Your task to perform on an android device: Go to ESPN.com Image 0: 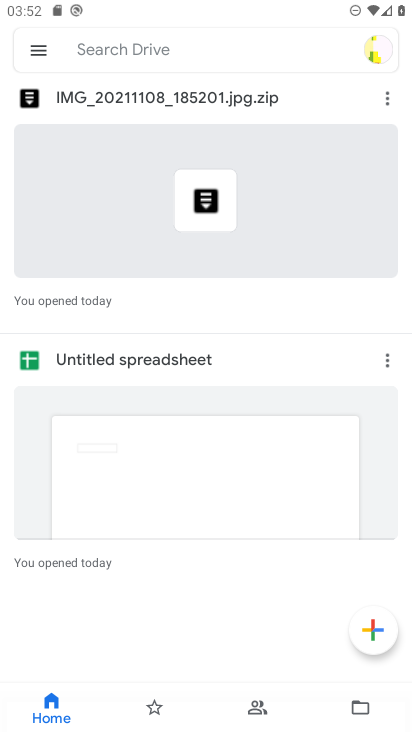
Step 0: press home button
Your task to perform on an android device: Go to ESPN.com Image 1: 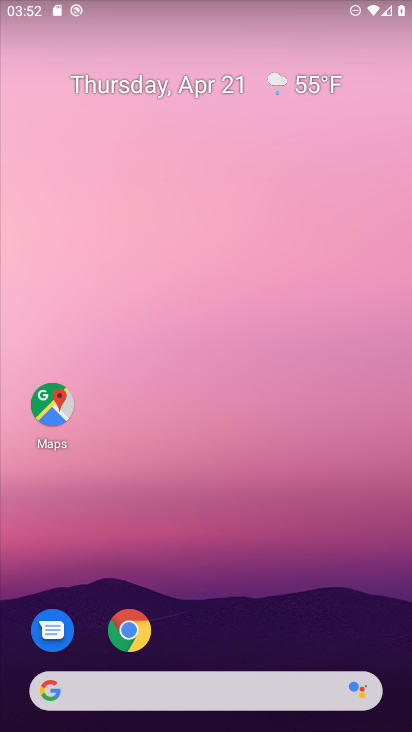
Step 1: drag from (160, 420) to (158, 134)
Your task to perform on an android device: Go to ESPN.com Image 2: 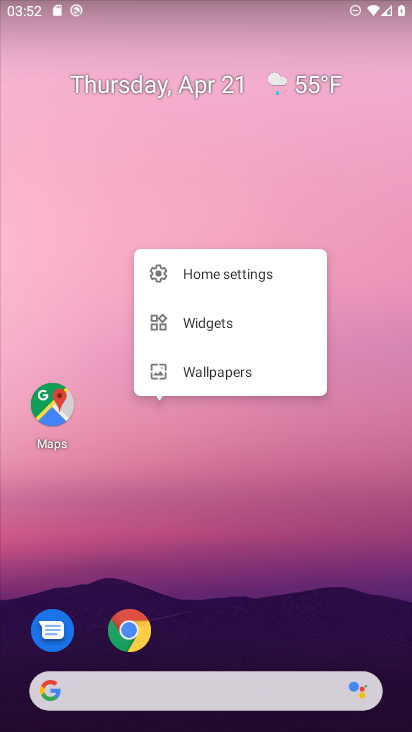
Step 2: click (257, 511)
Your task to perform on an android device: Go to ESPN.com Image 3: 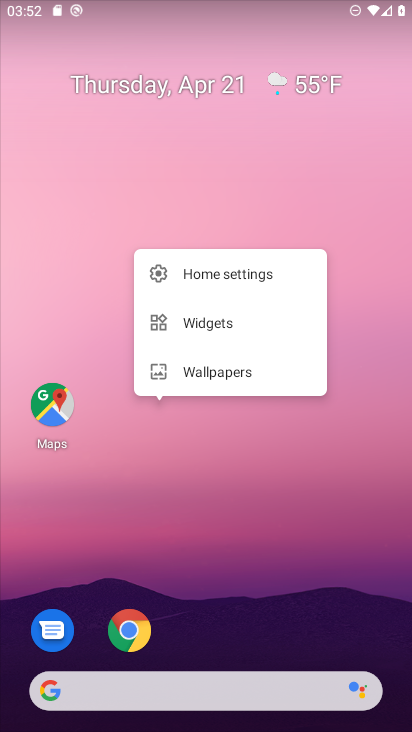
Step 3: drag from (257, 511) to (267, 229)
Your task to perform on an android device: Go to ESPN.com Image 4: 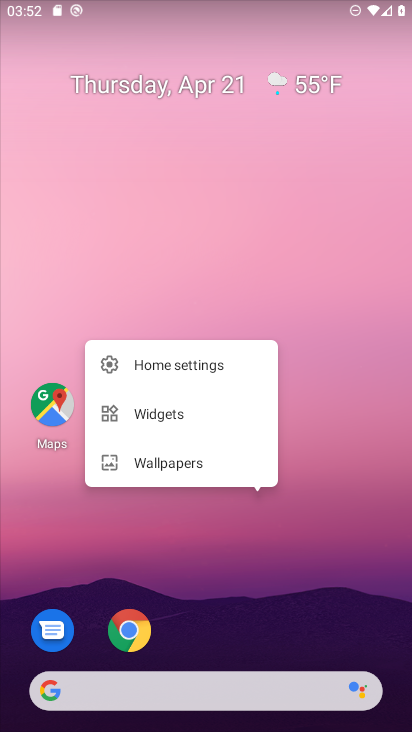
Step 4: click (366, 542)
Your task to perform on an android device: Go to ESPN.com Image 5: 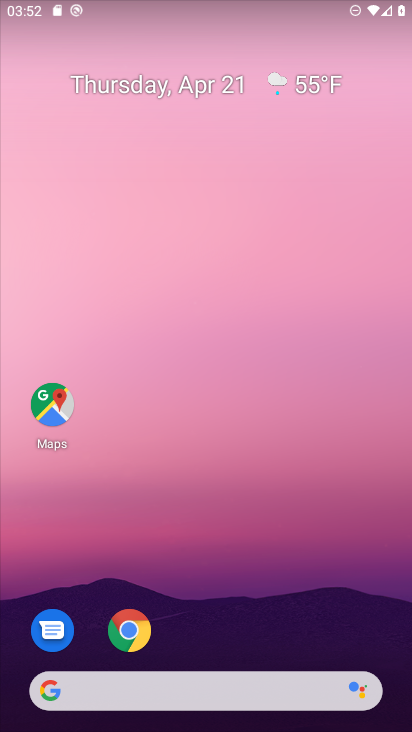
Step 5: drag from (306, 536) to (292, 147)
Your task to perform on an android device: Go to ESPN.com Image 6: 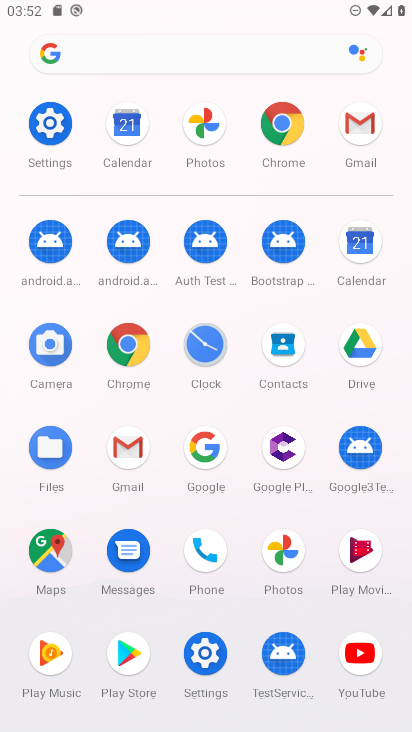
Step 6: click (225, 61)
Your task to perform on an android device: Go to ESPN.com Image 7: 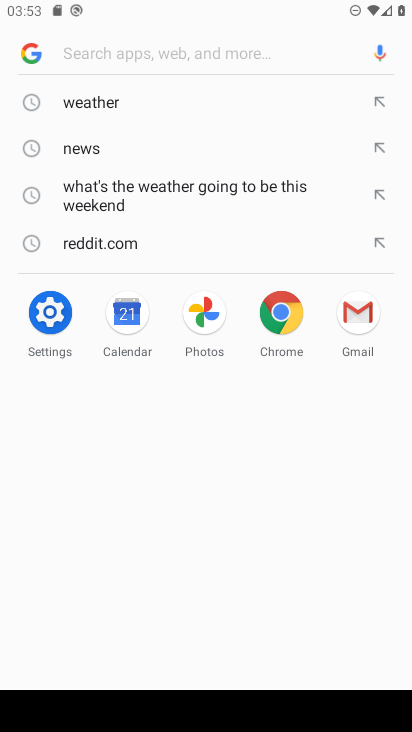
Step 7: type "espn.com"
Your task to perform on an android device: Go to ESPN.com Image 8: 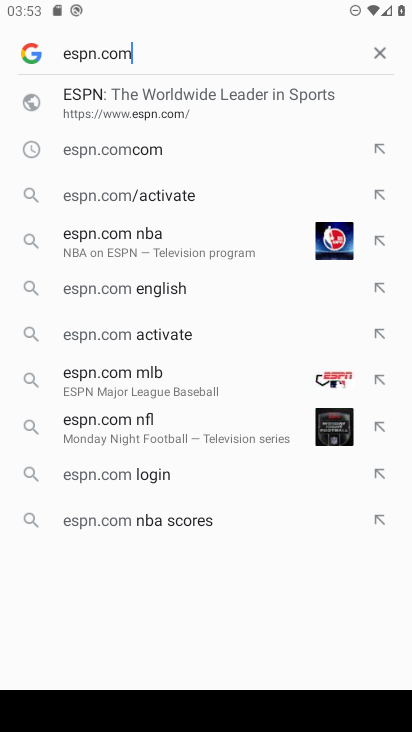
Step 8: click (242, 85)
Your task to perform on an android device: Go to ESPN.com Image 9: 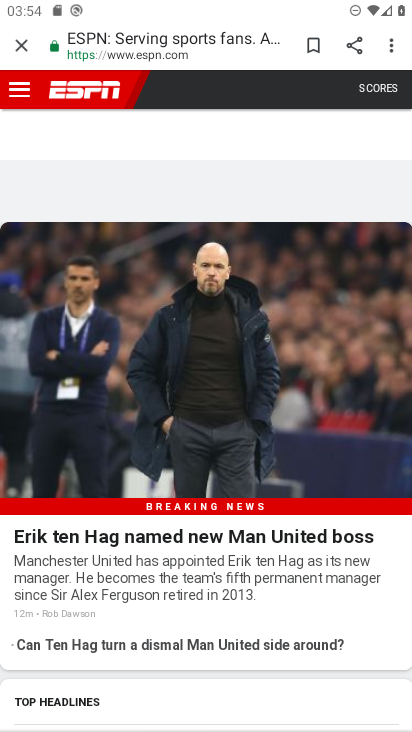
Step 9: task complete